Your task to perform on an android device: What's the weather going to be tomorrow? Image 0: 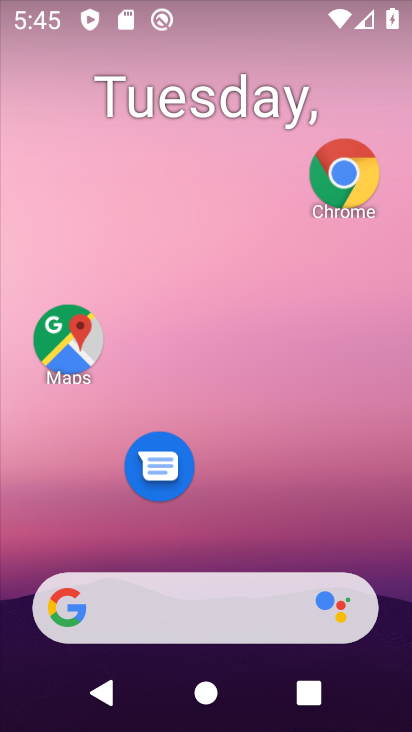
Step 0: click (342, 188)
Your task to perform on an android device: What's the weather going to be tomorrow? Image 1: 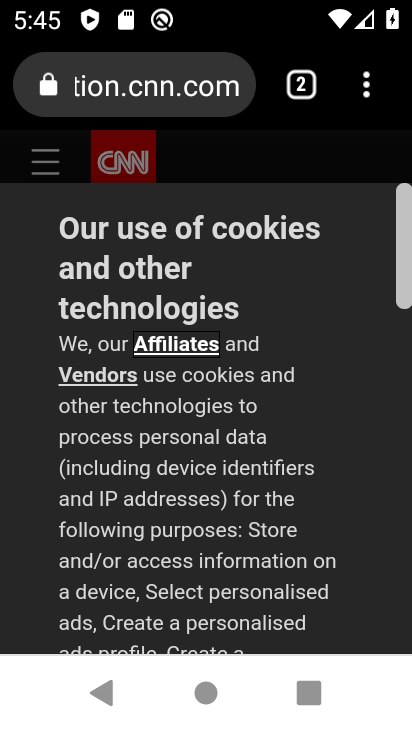
Step 1: click (205, 95)
Your task to perform on an android device: What's the weather going to be tomorrow? Image 2: 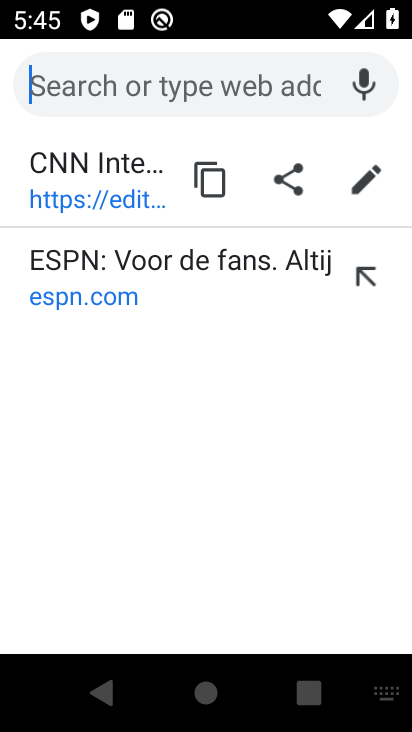
Step 2: type "What's the weather going to be tomorrow?"
Your task to perform on an android device: What's the weather going to be tomorrow? Image 3: 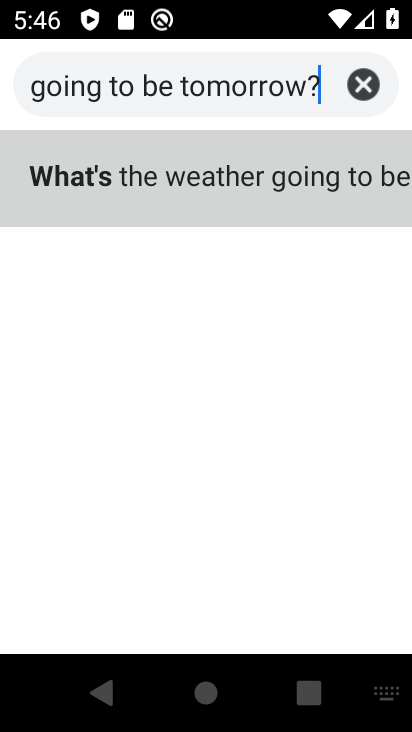
Step 3: click (56, 188)
Your task to perform on an android device: What's the weather going to be tomorrow? Image 4: 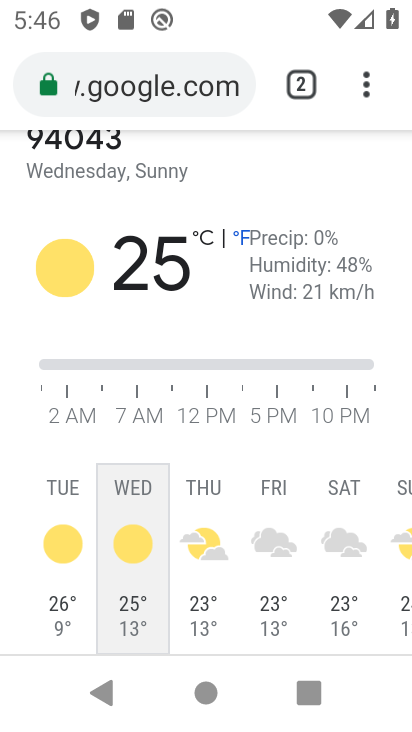
Step 4: task complete